Your task to perform on an android device: Go to accessibility settings Image 0: 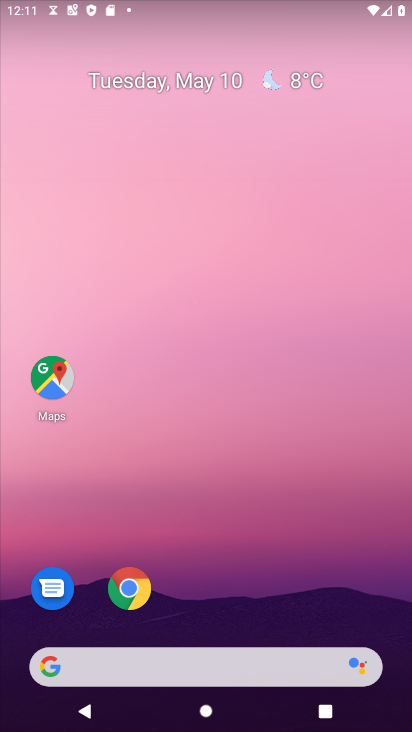
Step 0: drag from (181, 653) to (287, 75)
Your task to perform on an android device: Go to accessibility settings Image 1: 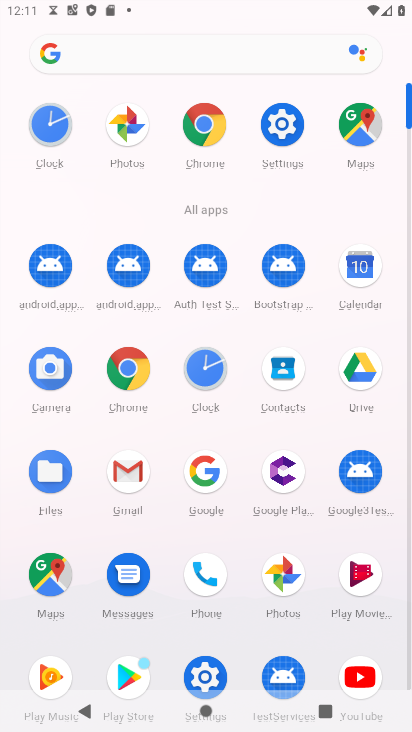
Step 1: click (211, 673)
Your task to perform on an android device: Go to accessibility settings Image 2: 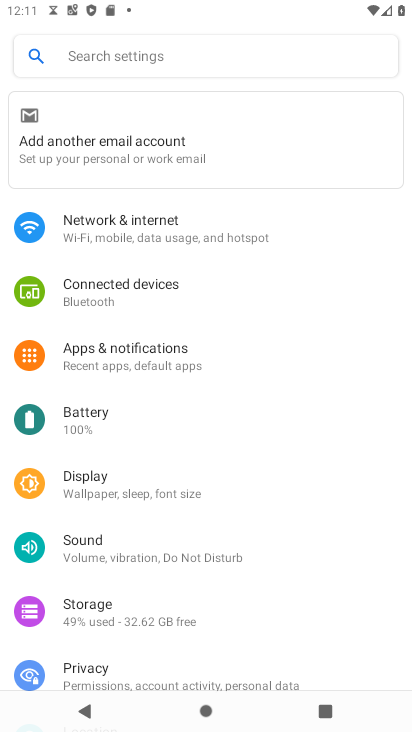
Step 2: drag from (130, 604) to (258, 159)
Your task to perform on an android device: Go to accessibility settings Image 3: 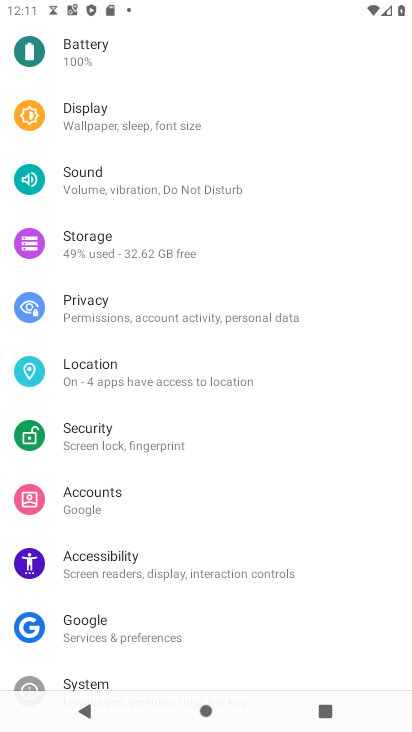
Step 3: drag from (161, 659) to (239, 357)
Your task to perform on an android device: Go to accessibility settings Image 4: 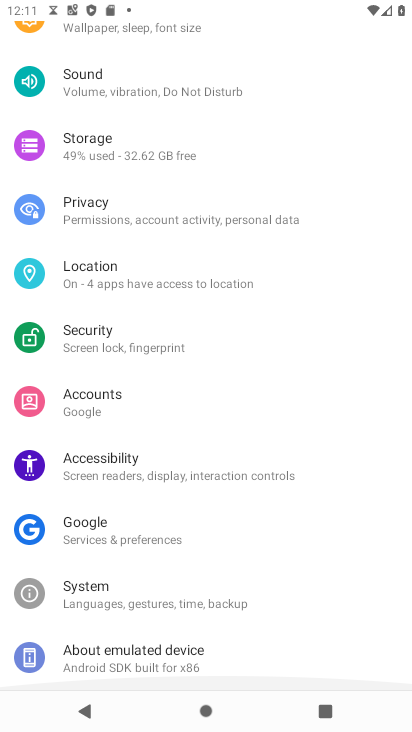
Step 4: click (133, 468)
Your task to perform on an android device: Go to accessibility settings Image 5: 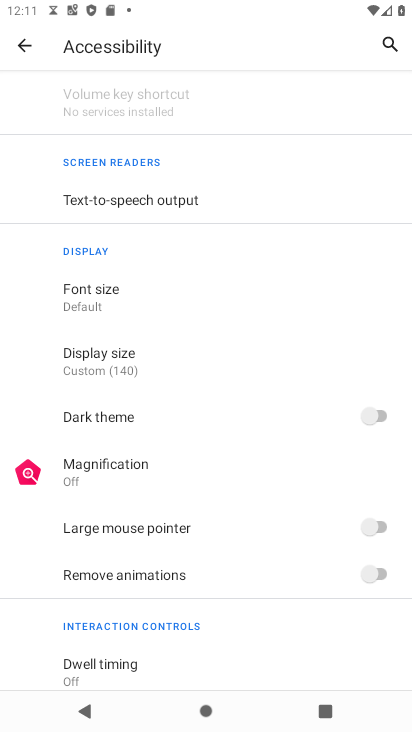
Step 5: task complete